Your task to perform on an android device: Find coffee shops on Maps Image 0: 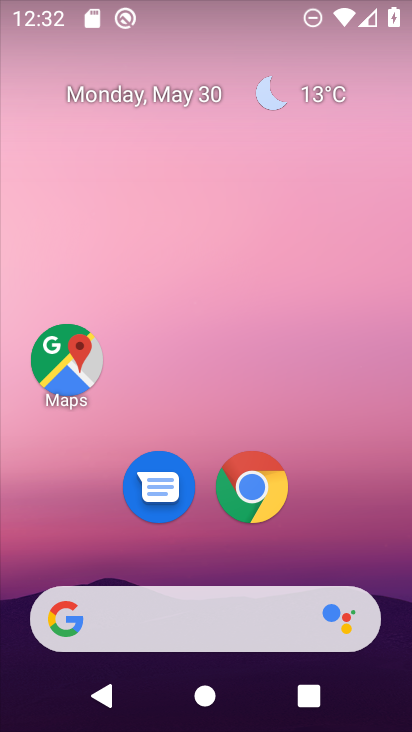
Step 0: click (50, 368)
Your task to perform on an android device: Find coffee shops on Maps Image 1: 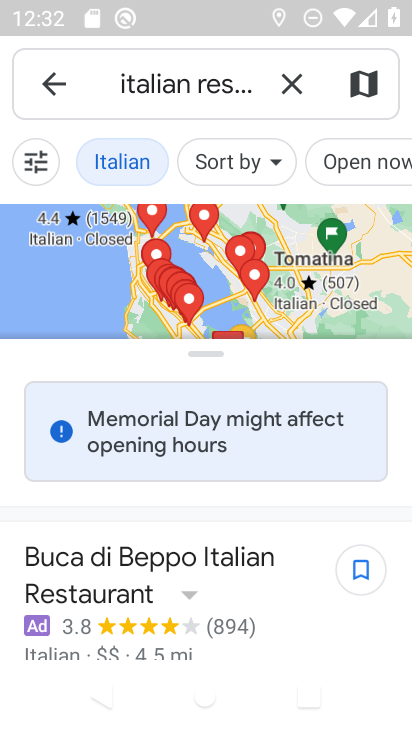
Step 1: click (294, 70)
Your task to perform on an android device: Find coffee shops on Maps Image 2: 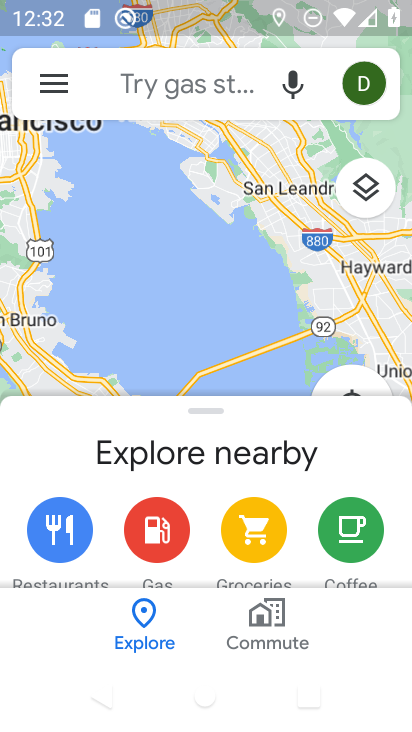
Step 2: click (162, 81)
Your task to perform on an android device: Find coffee shops on Maps Image 3: 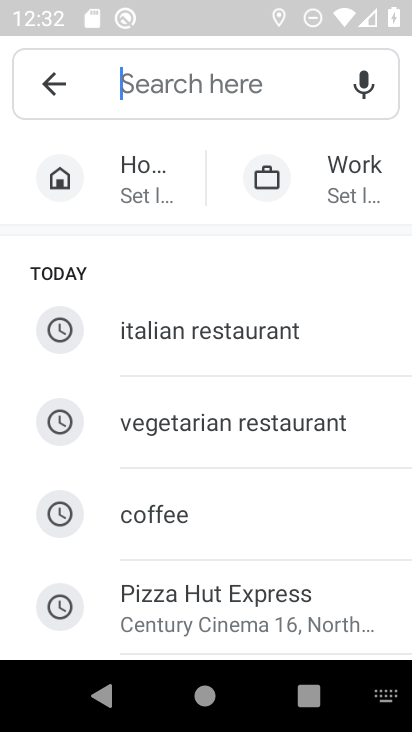
Step 3: type "coffee shops"
Your task to perform on an android device: Find coffee shops on Maps Image 4: 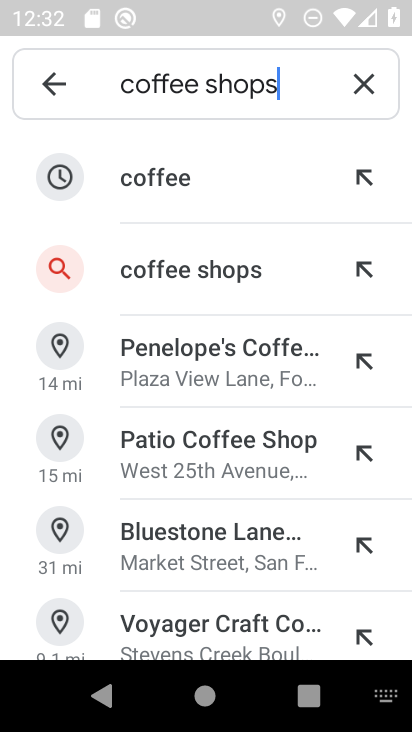
Step 4: click (181, 267)
Your task to perform on an android device: Find coffee shops on Maps Image 5: 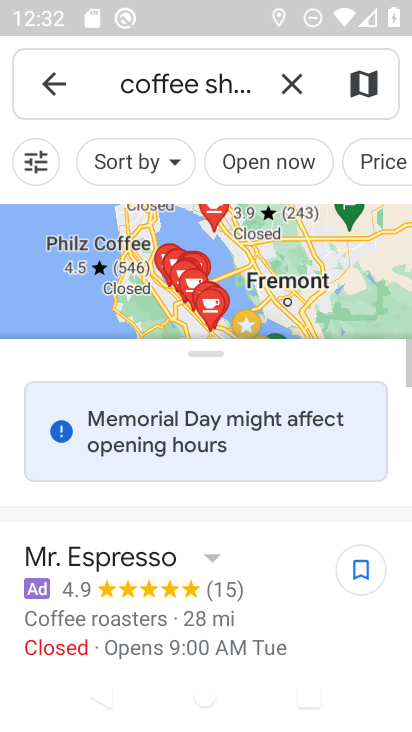
Step 5: task complete